Your task to perform on an android device: set the timer Image 0: 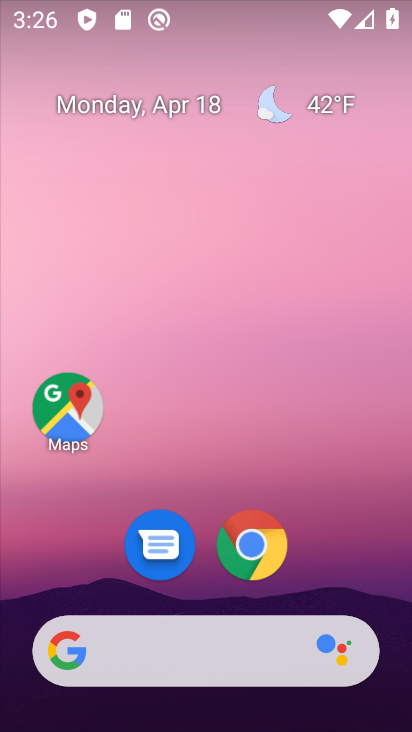
Step 0: drag from (334, 576) to (313, 93)
Your task to perform on an android device: set the timer Image 1: 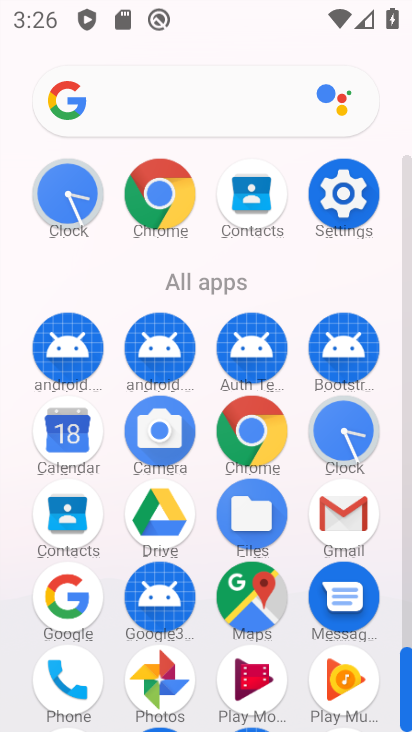
Step 1: click (329, 448)
Your task to perform on an android device: set the timer Image 2: 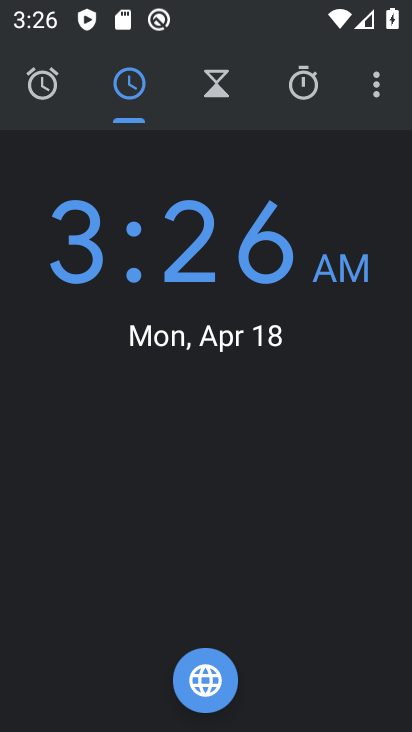
Step 2: click (226, 79)
Your task to perform on an android device: set the timer Image 3: 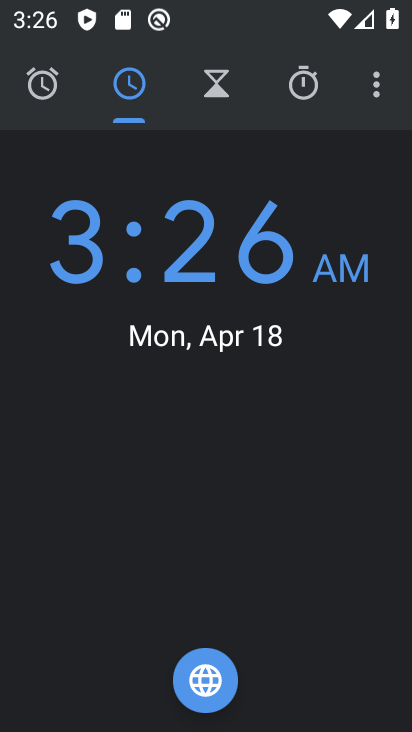
Step 3: click (225, 81)
Your task to perform on an android device: set the timer Image 4: 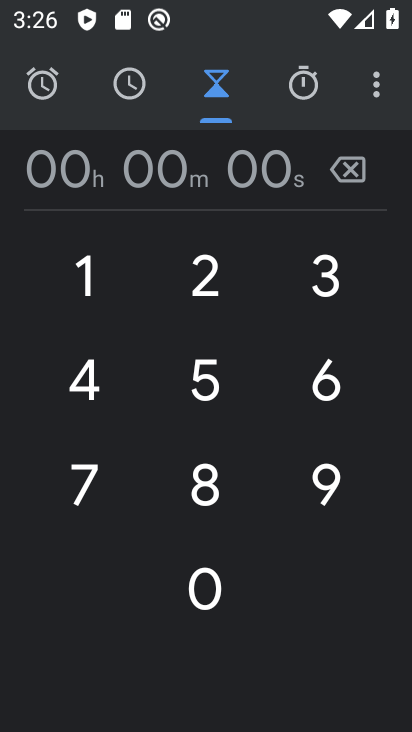
Step 4: click (209, 380)
Your task to perform on an android device: set the timer Image 5: 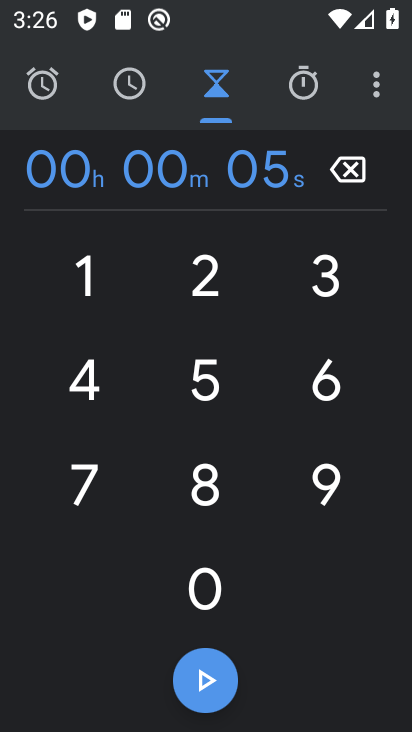
Step 5: click (211, 683)
Your task to perform on an android device: set the timer Image 6: 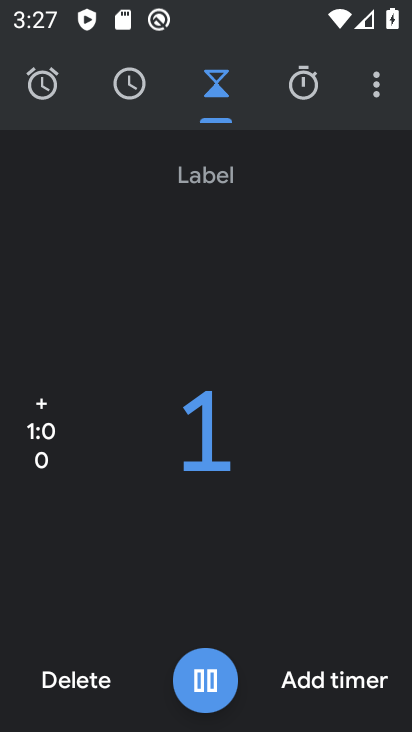
Step 6: task complete